Your task to perform on an android device: see tabs open on other devices in the chrome app Image 0: 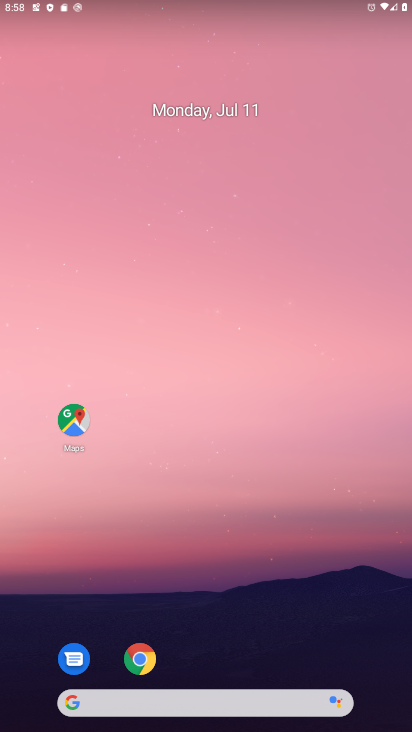
Step 0: click (141, 659)
Your task to perform on an android device: see tabs open on other devices in the chrome app Image 1: 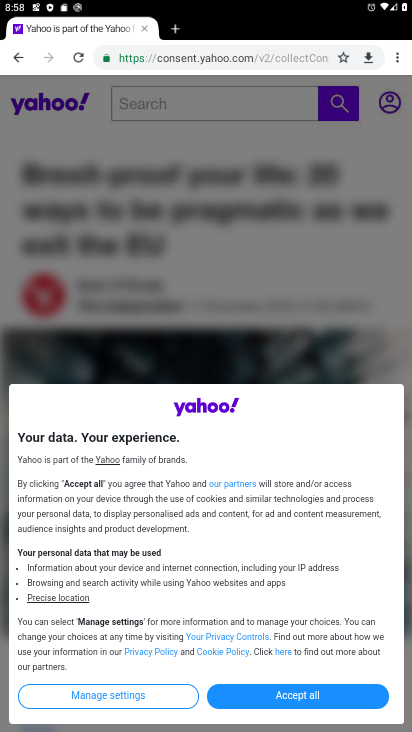
Step 1: click (279, 693)
Your task to perform on an android device: see tabs open on other devices in the chrome app Image 2: 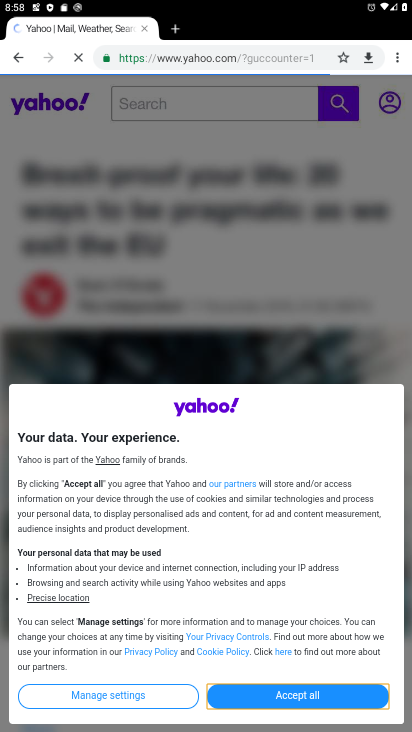
Step 2: click (399, 59)
Your task to perform on an android device: see tabs open on other devices in the chrome app Image 3: 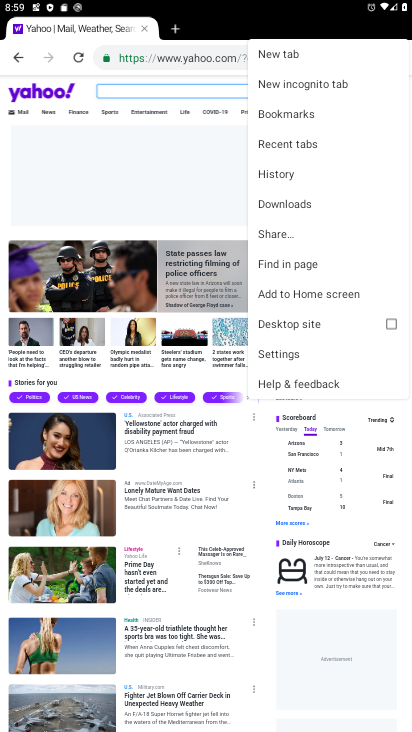
Step 3: click (294, 139)
Your task to perform on an android device: see tabs open on other devices in the chrome app Image 4: 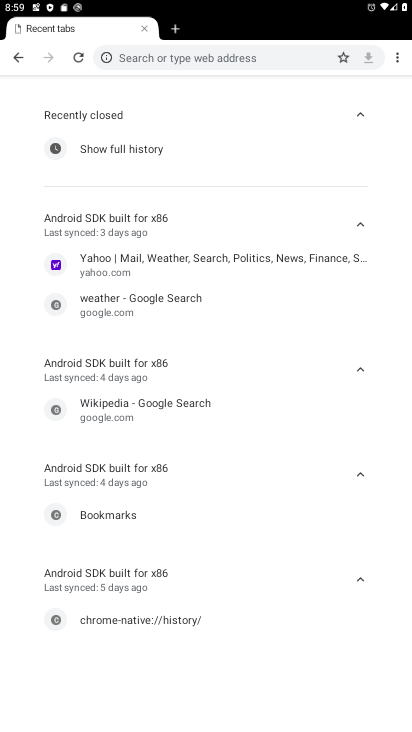
Step 4: task complete